Your task to perform on an android device: Open calendar and show me the third week of next month Image 0: 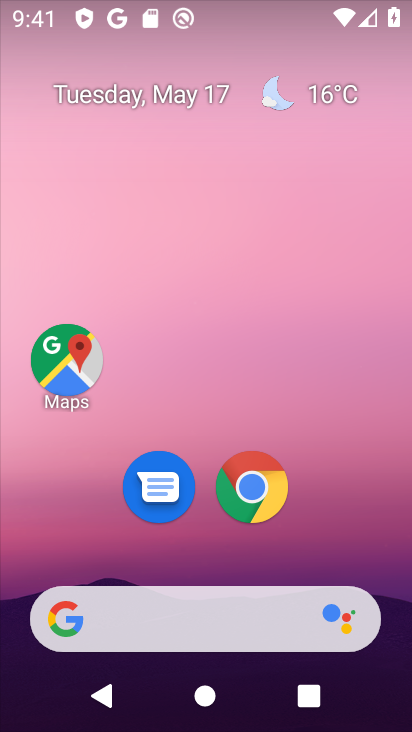
Step 0: click (404, 254)
Your task to perform on an android device: Open calendar and show me the third week of next month Image 1: 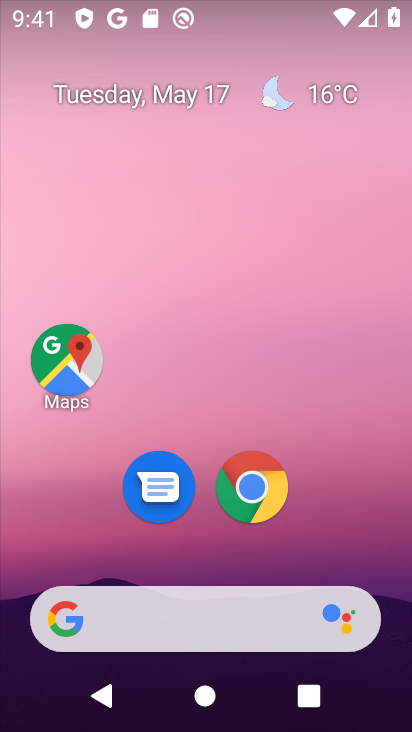
Step 1: drag from (388, 679) to (406, 391)
Your task to perform on an android device: Open calendar and show me the third week of next month Image 2: 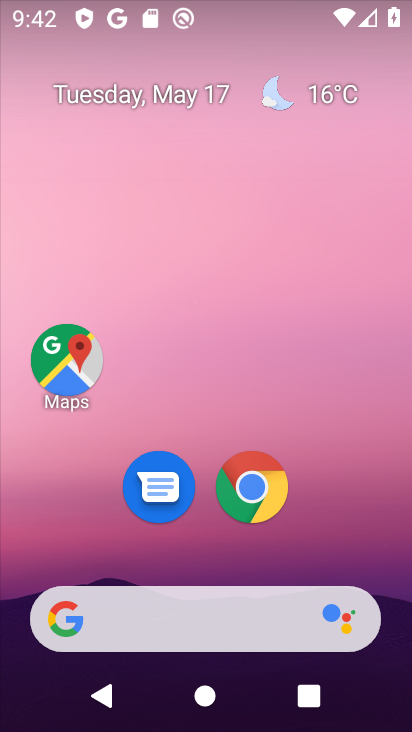
Step 2: drag from (410, 388) to (406, 160)
Your task to perform on an android device: Open calendar and show me the third week of next month Image 3: 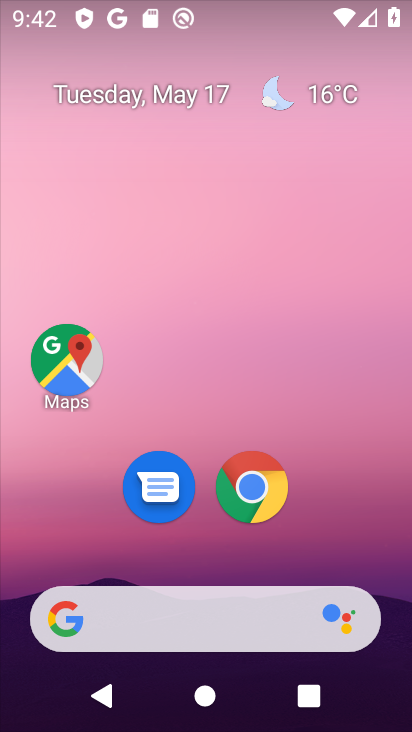
Step 3: drag from (395, 680) to (410, 219)
Your task to perform on an android device: Open calendar and show me the third week of next month Image 4: 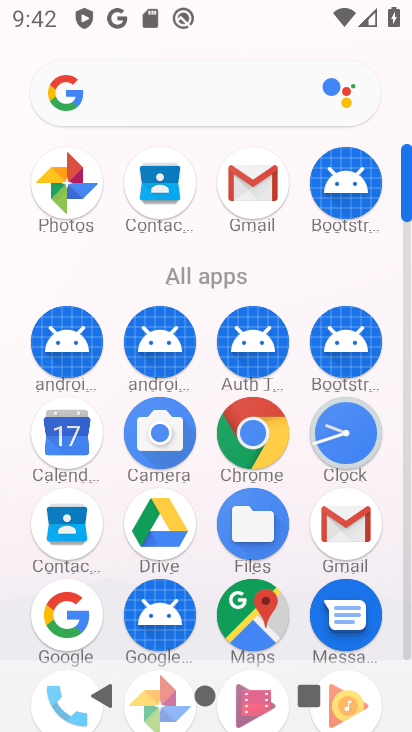
Step 4: click (76, 443)
Your task to perform on an android device: Open calendar and show me the third week of next month Image 5: 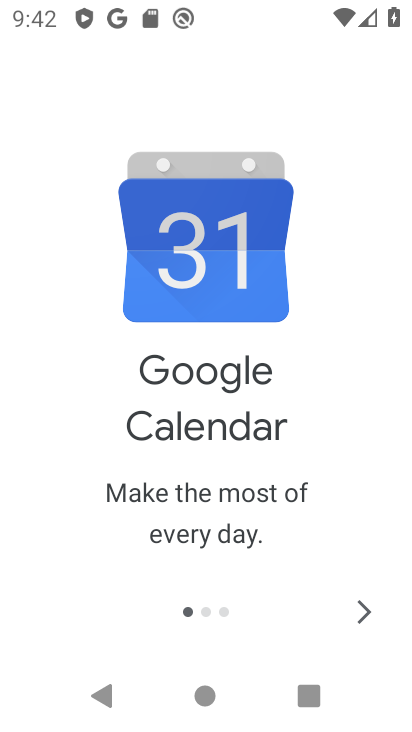
Step 5: click (353, 602)
Your task to perform on an android device: Open calendar and show me the third week of next month Image 6: 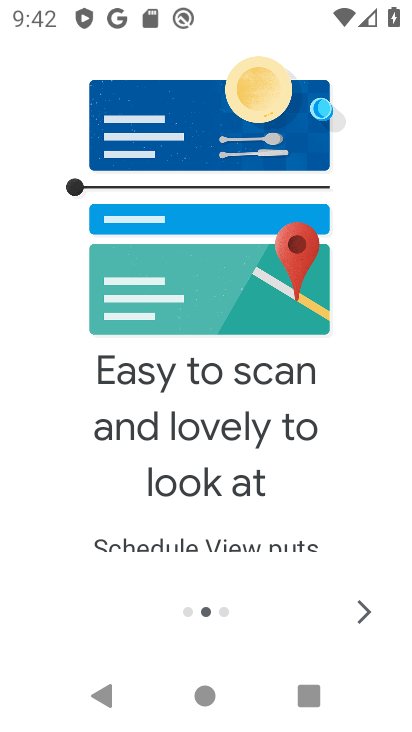
Step 6: click (366, 612)
Your task to perform on an android device: Open calendar and show me the third week of next month Image 7: 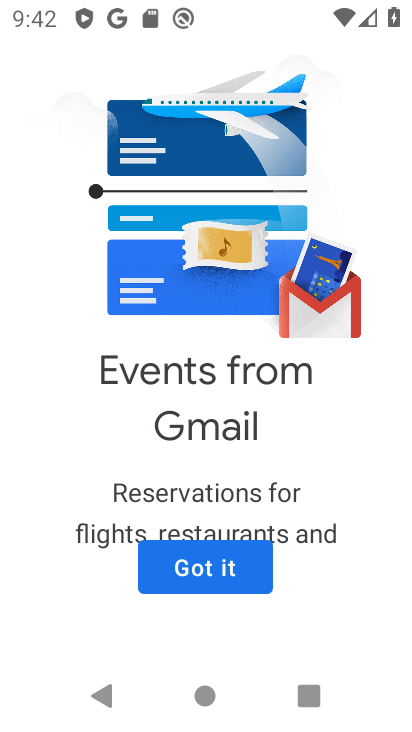
Step 7: click (253, 573)
Your task to perform on an android device: Open calendar and show me the third week of next month Image 8: 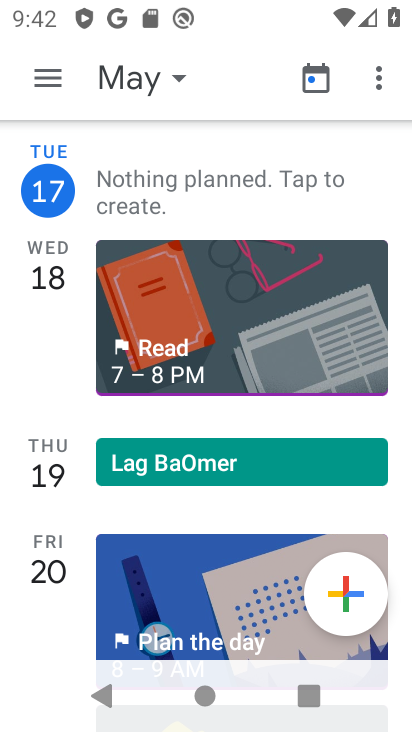
Step 8: click (172, 78)
Your task to perform on an android device: Open calendar and show me the third week of next month Image 9: 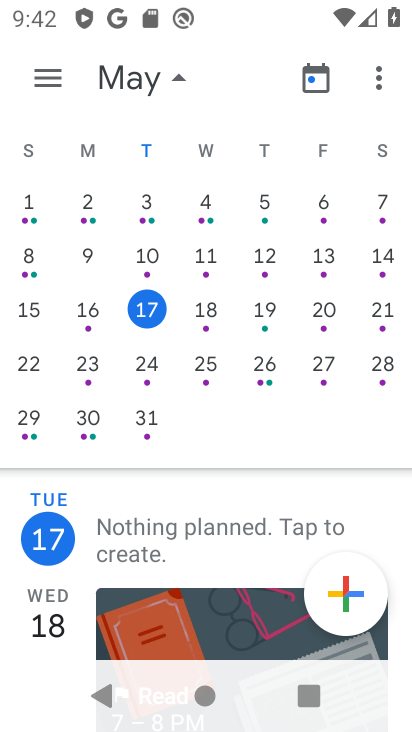
Step 9: drag from (398, 286) to (0, 242)
Your task to perform on an android device: Open calendar and show me the third week of next month Image 10: 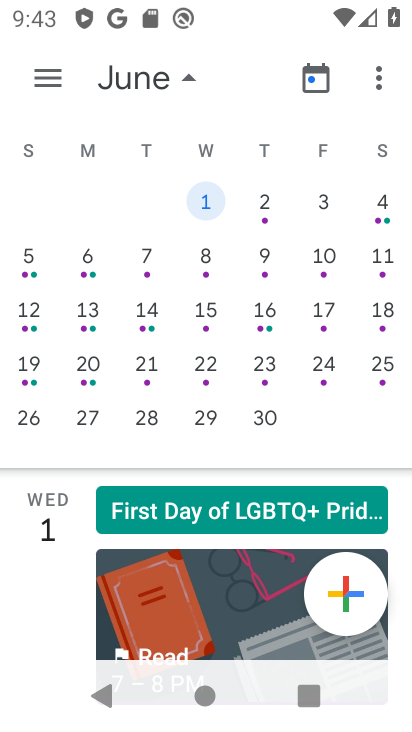
Step 10: click (259, 308)
Your task to perform on an android device: Open calendar and show me the third week of next month Image 11: 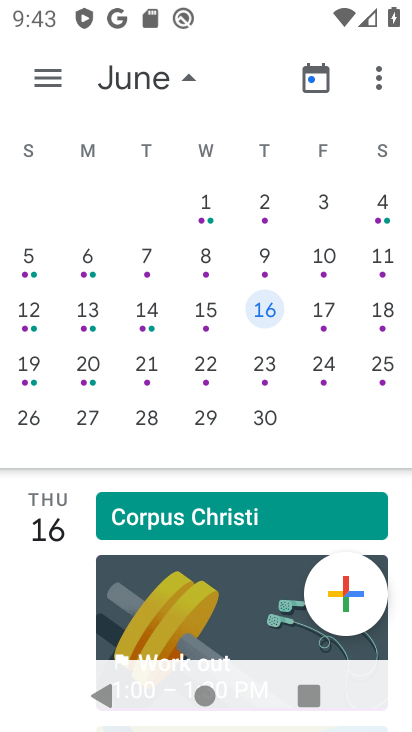
Step 11: task complete